Your task to perform on an android device: Go to Google Image 0: 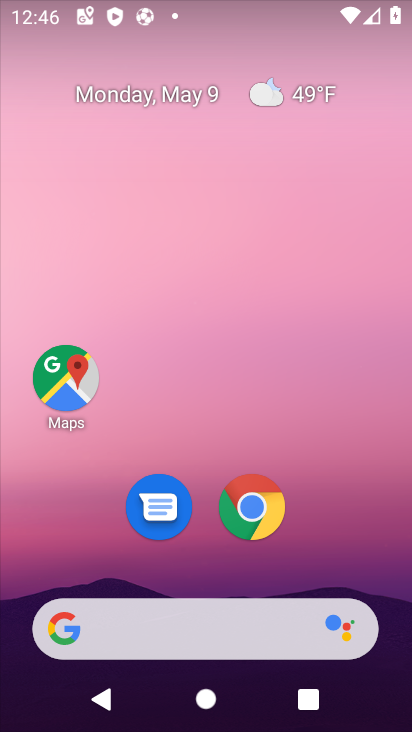
Step 0: drag from (206, 602) to (249, 233)
Your task to perform on an android device: Go to Google Image 1: 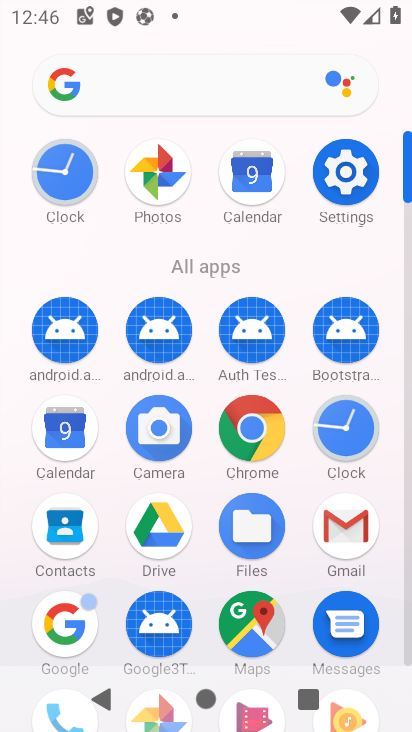
Step 1: click (76, 618)
Your task to perform on an android device: Go to Google Image 2: 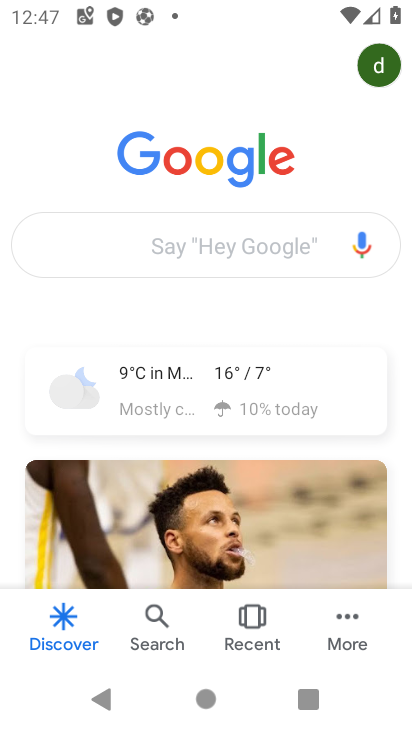
Step 2: task complete